Your task to perform on an android device: delete a single message in the gmail app Image 0: 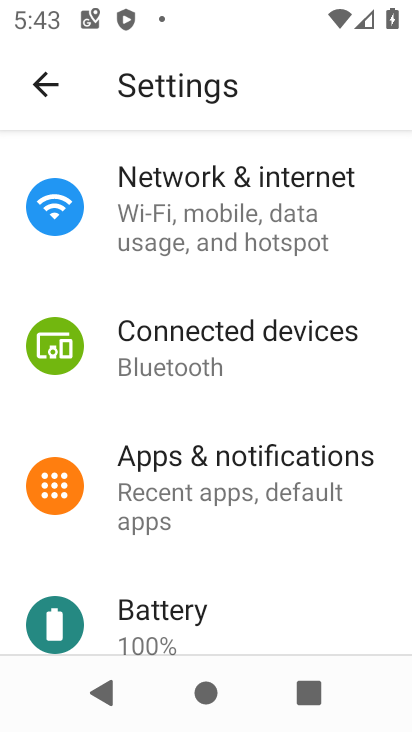
Step 0: press back button
Your task to perform on an android device: delete a single message in the gmail app Image 1: 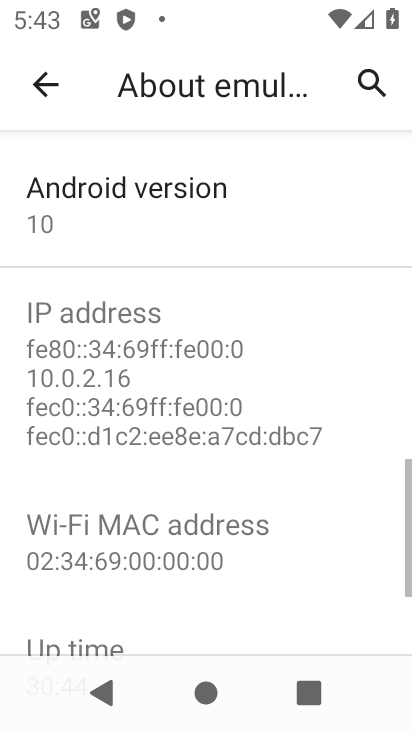
Step 1: press back button
Your task to perform on an android device: delete a single message in the gmail app Image 2: 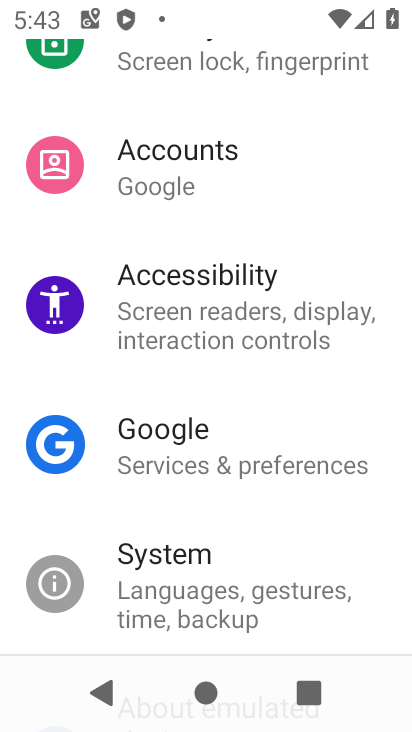
Step 2: press back button
Your task to perform on an android device: delete a single message in the gmail app Image 3: 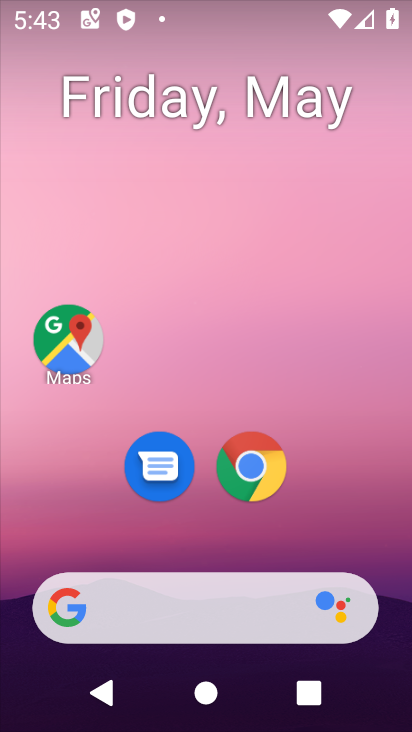
Step 3: drag from (354, 495) to (290, 33)
Your task to perform on an android device: delete a single message in the gmail app Image 4: 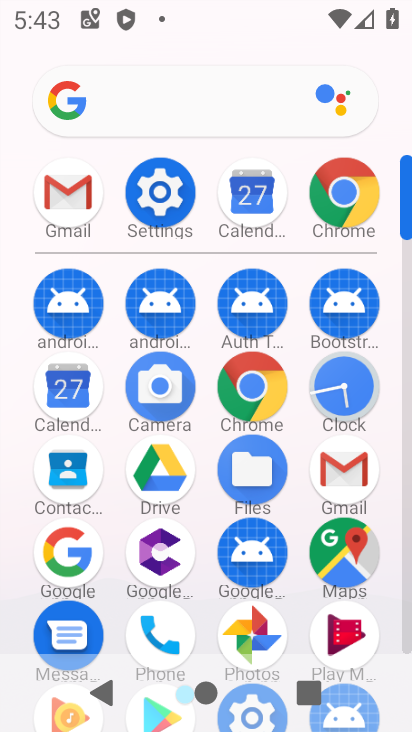
Step 4: click (67, 185)
Your task to perform on an android device: delete a single message in the gmail app Image 5: 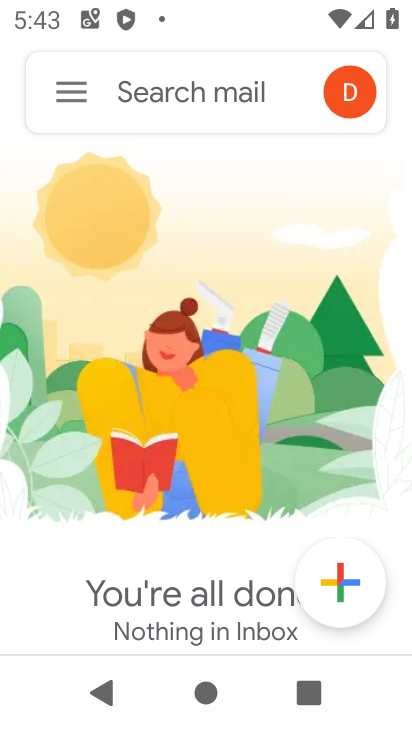
Step 5: click (66, 89)
Your task to perform on an android device: delete a single message in the gmail app Image 6: 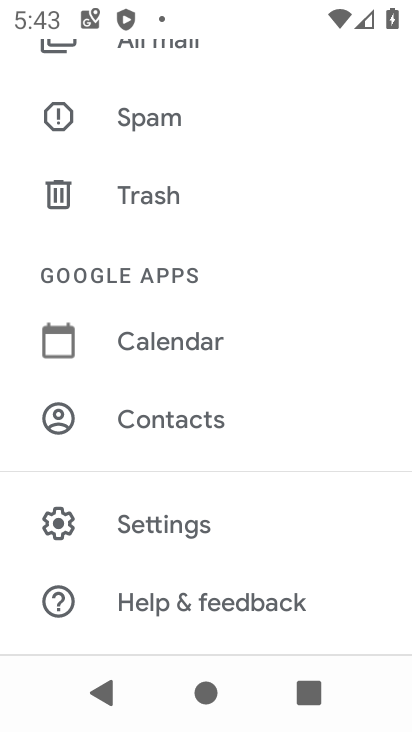
Step 6: drag from (291, 156) to (308, 601)
Your task to perform on an android device: delete a single message in the gmail app Image 7: 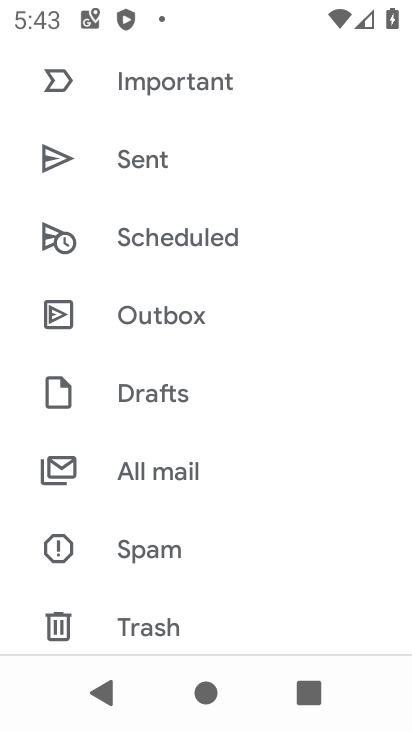
Step 7: drag from (260, 174) to (260, 618)
Your task to perform on an android device: delete a single message in the gmail app Image 8: 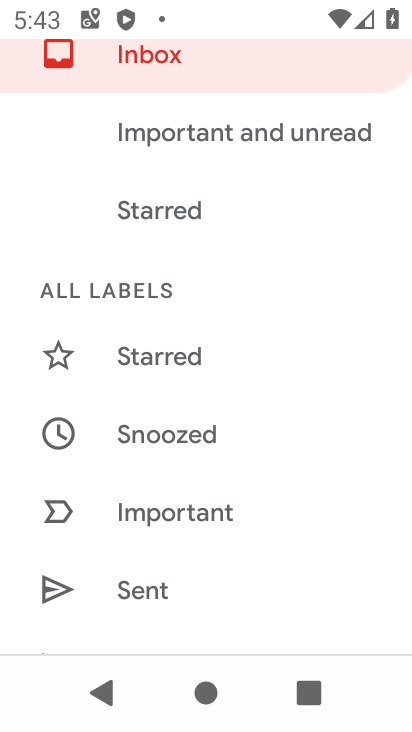
Step 8: drag from (240, 163) to (246, 559)
Your task to perform on an android device: delete a single message in the gmail app Image 9: 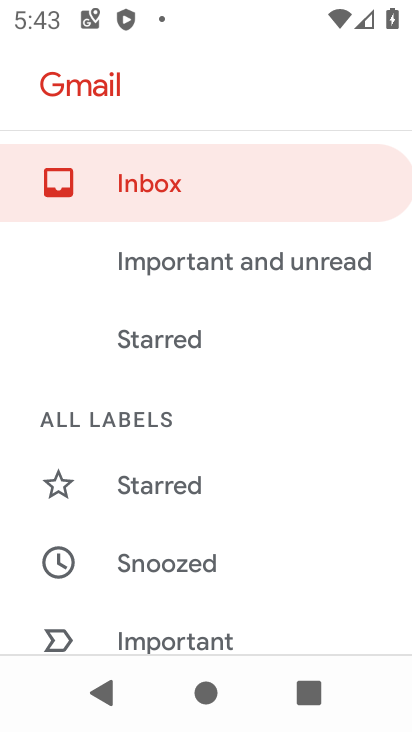
Step 9: drag from (263, 573) to (260, 111)
Your task to perform on an android device: delete a single message in the gmail app Image 10: 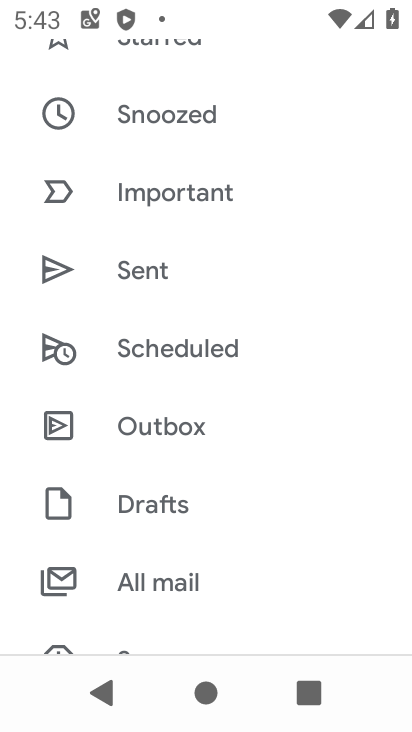
Step 10: drag from (231, 528) to (247, 177)
Your task to perform on an android device: delete a single message in the gmail app Image 11: 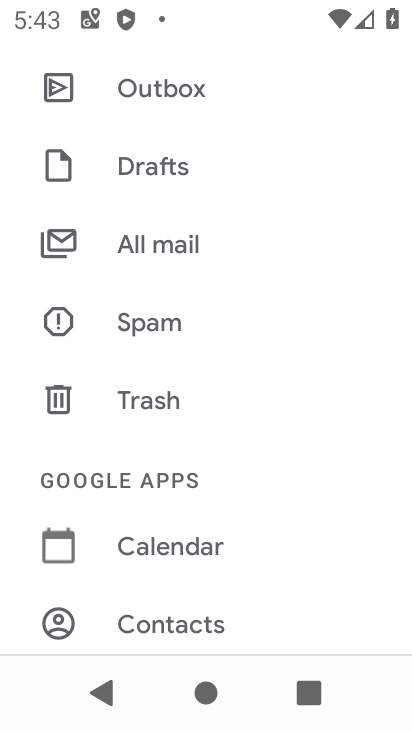
Step 11: click (183, 237)
Your task to perform on an android device: delete a single message in the gmail app Image 12: 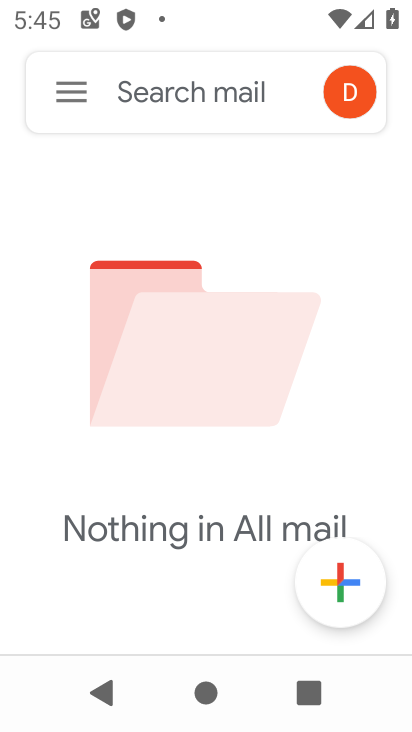
Step 12: task complete